Your task to perform on an android device: change alarm snooze length Image 0: 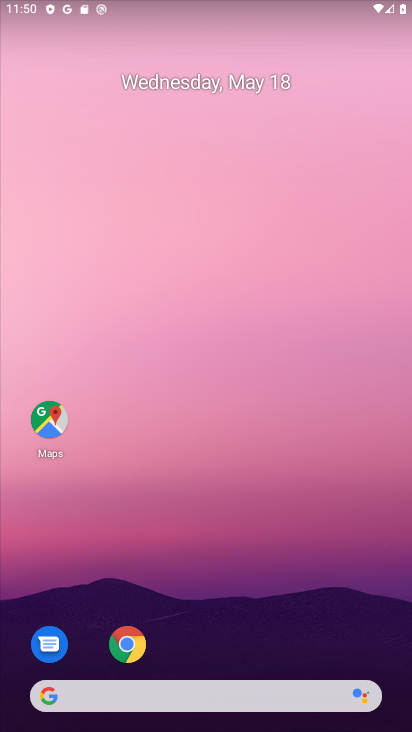
Step 0: drag from (273, 627) to (331, 164)
Your task to perform on an android device: change alarm snooze length Image 1: 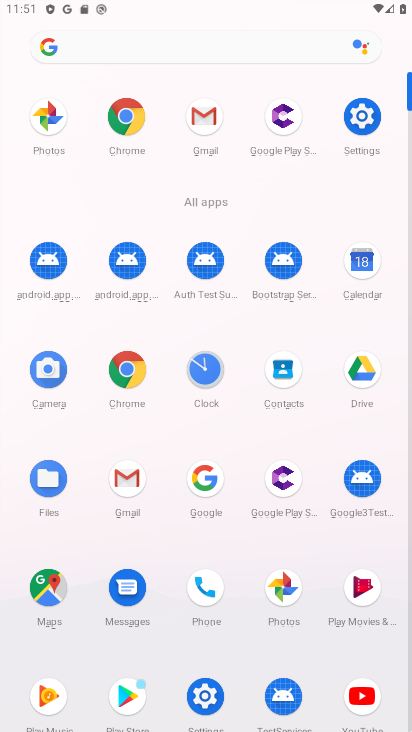
Step 1: click (206, 374)
Your task to perform on an android device: change alarm snooze length Image 2: 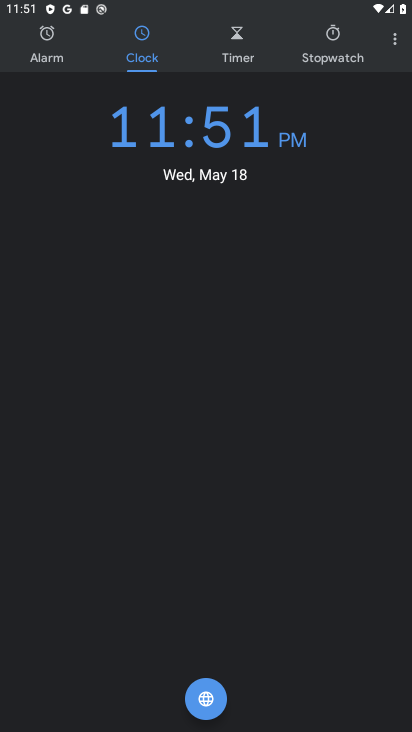
Step 2: drag from (394, 52) to (317, 75)
Your task to perform on an android device: change alarm snooze length Image 3: 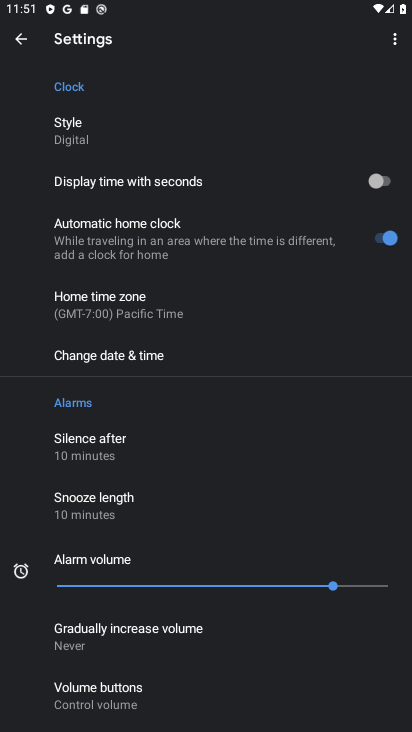
Step 3: click (176, 513)
Your task to perform on an android device: change alarm snooze length Image 4: 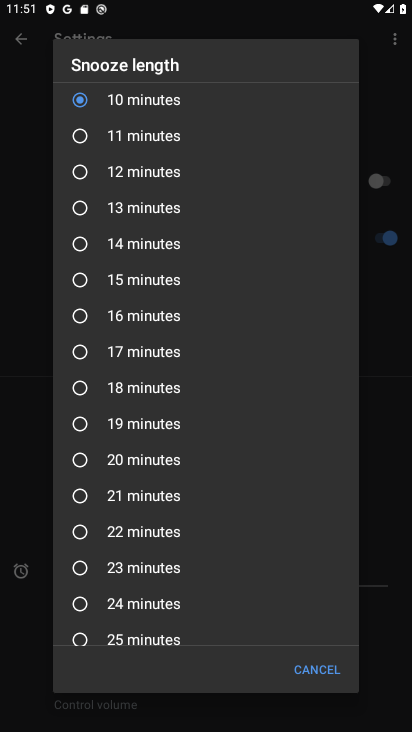
Step 4: click (121, 497)
Your task to perform on an android device: change alarm snooze length Image 5: 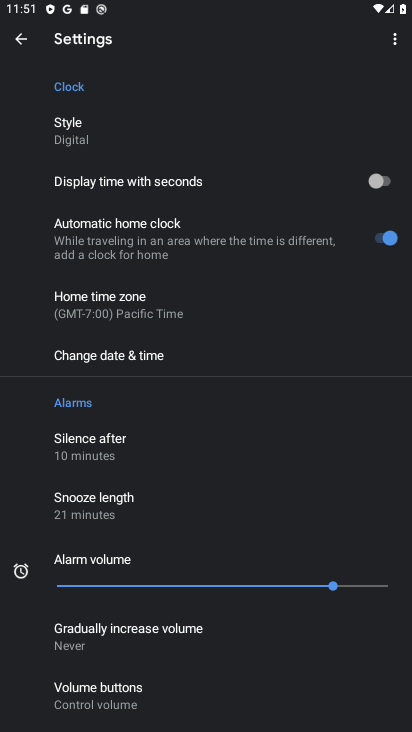
Step 5: task complete